Your task to perform on an android device: open a bookmark in the chrome app Image 0: 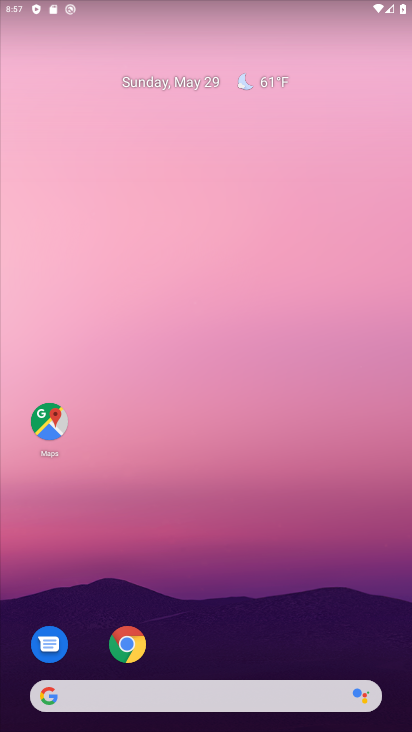
Step 0: drag from (290, 612) to (126, 37)
Your task to perform on an android device: open a bookmark in the chrome app Image 1: 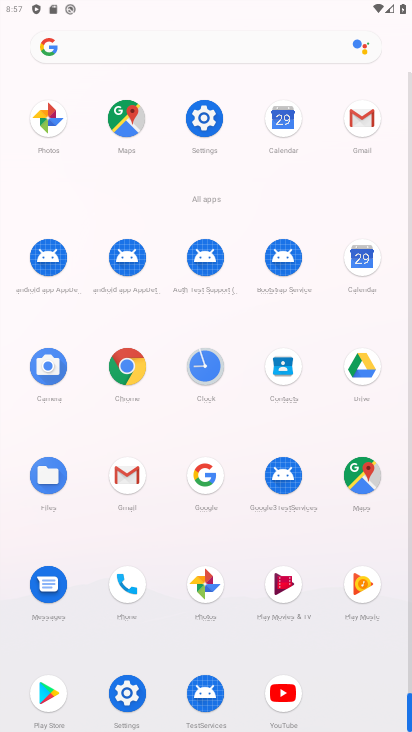
Step 1: drag from (2, 404) to (7, 151)
Your task to perform on an android device: open a bookmark in the chrome app Image 2: 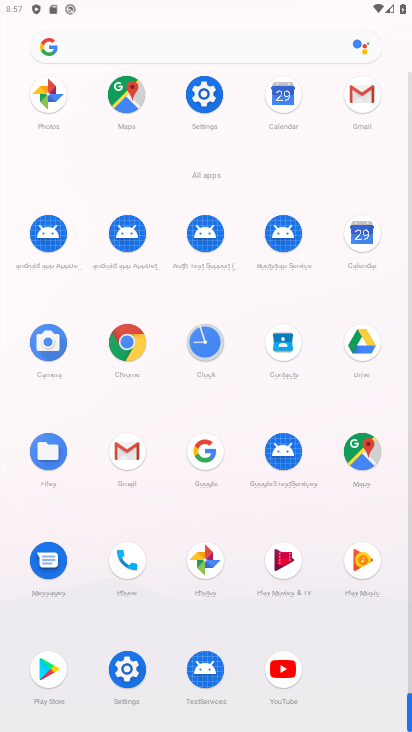
Step 2: click (125, 335)
Your task to perform on an android device: open a bookmark in the chrome app Image 3: 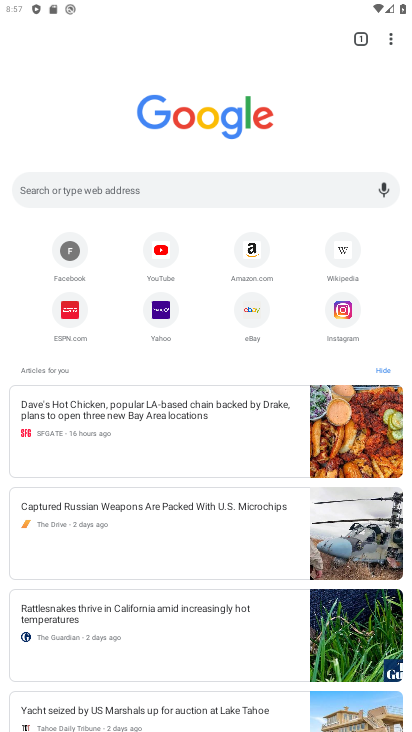
Step 3: drag from (395, 39) to (245, 130)
Your task to perform on an android device: open a bookmark in the chrome app Image 4: 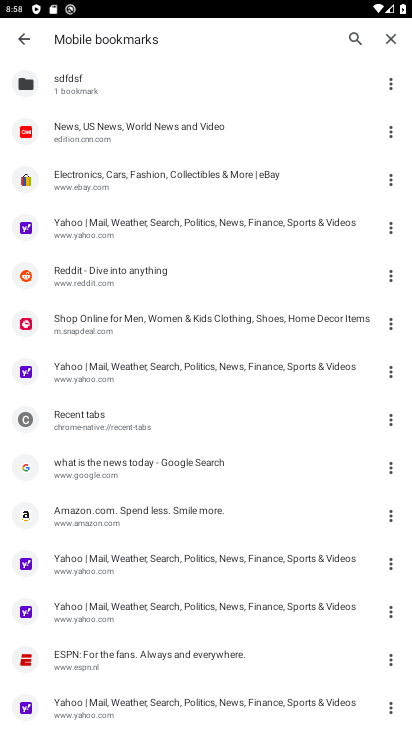
Step 4: click (104, 174)
Your task to perform on an android device: open a bookmark in the chrome app Image 5: 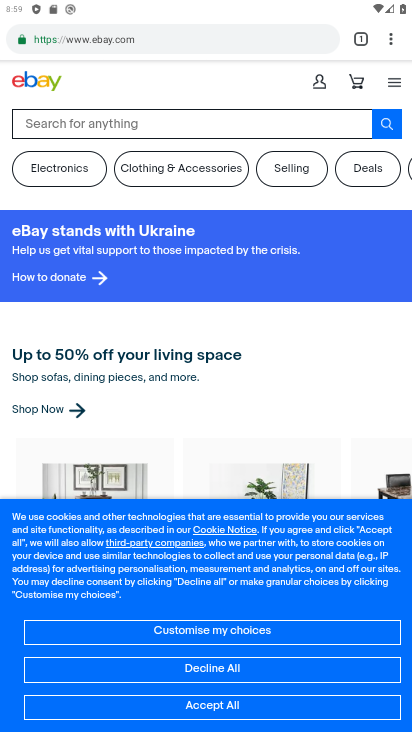
Step 5: task complete